Your task to perform on an android device: Open eBay Image 0: 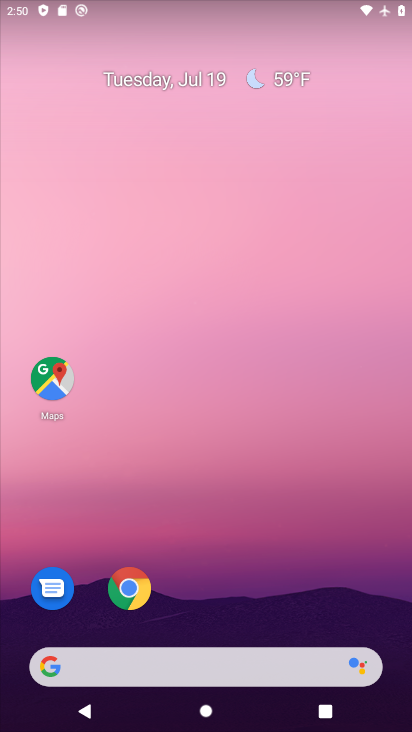
Step 0: click (54, 662)
Your task to perform on an android device: Open eBay Image 1: 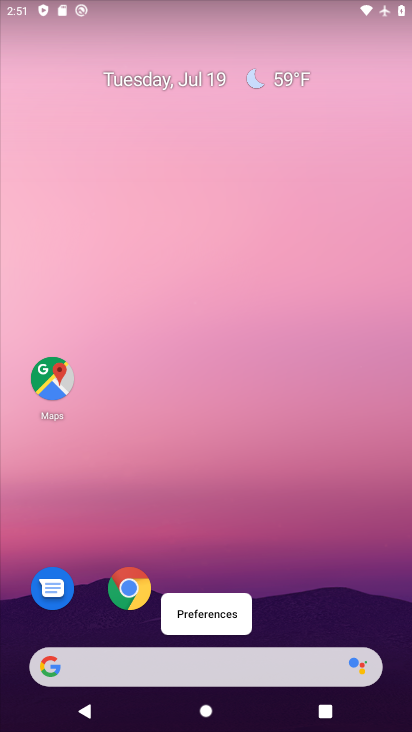
Step 1: click (43, 665)
Your task to perform on an android device: Open eBay Image 2: 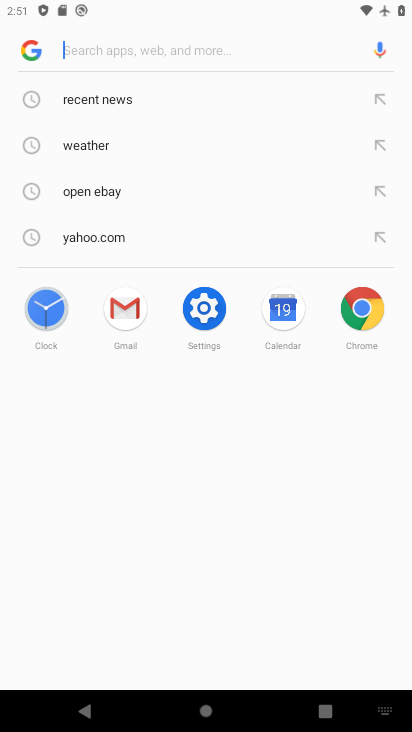
Step 2: click (102, 188)
Your task to perform on an android device: Open eBay Image 3: 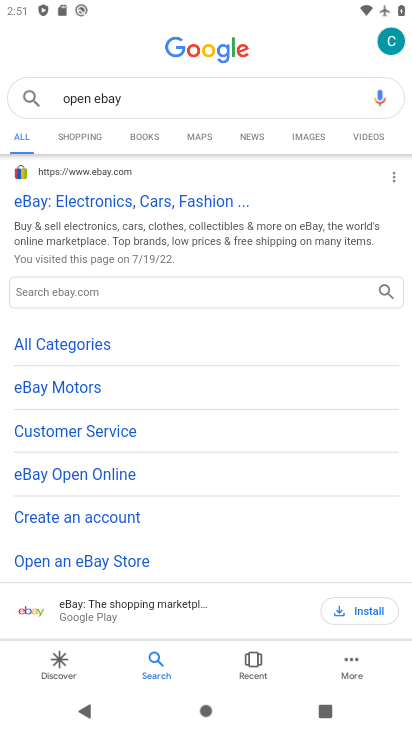
Step 3: click (130, 207)
Your task to perform on an android device: Open eBay Image 4: 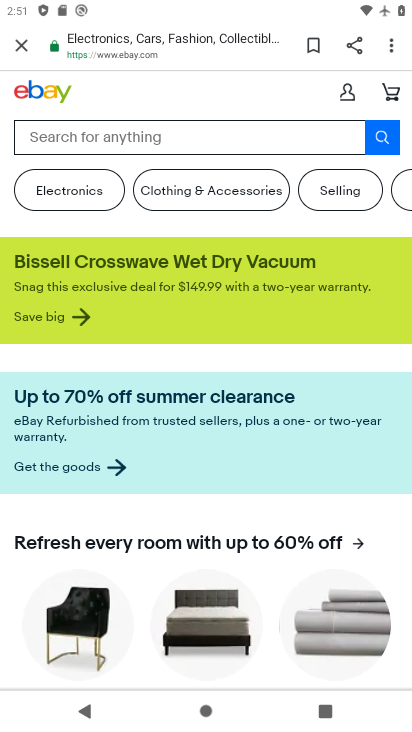
Step 4: task complete